Your task to perform on an android device: find which apps use the phone's location Image 0: 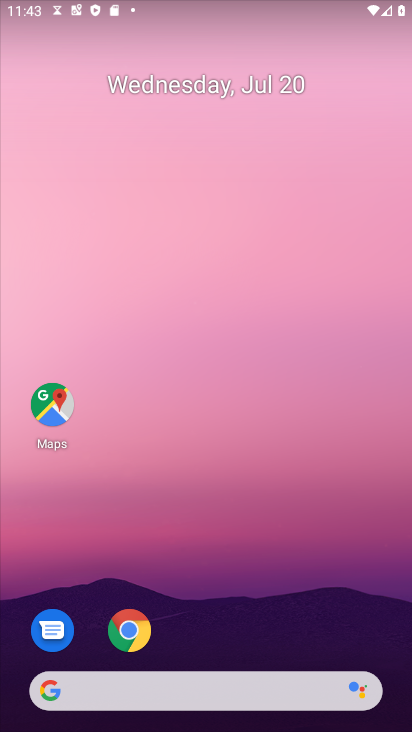
Step 0: drag from (28, 690) to (360, 16)
Your task to perform on an android device: find which apps use the phone's location Image 1: 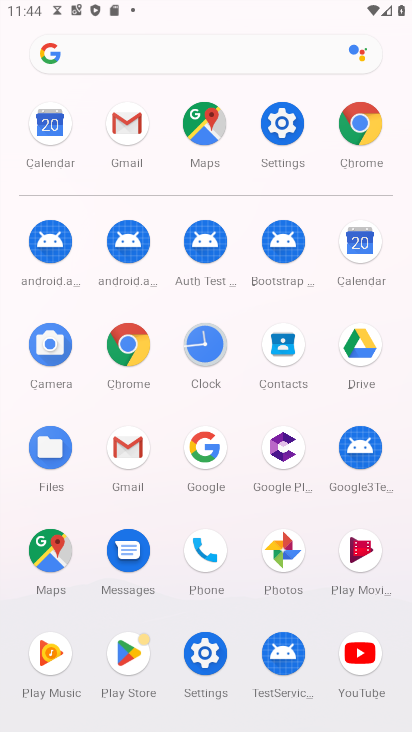
Step 1: click (195, 654)
Your task to perform on an android device: find which apps use the phone's location Image 2: 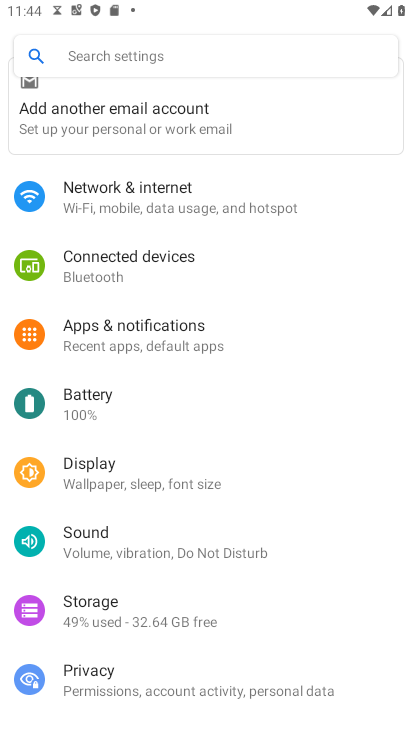
Step 2: click (139, 331)
Your task to perform on an android device: find which apps use the phone's location Image 3: 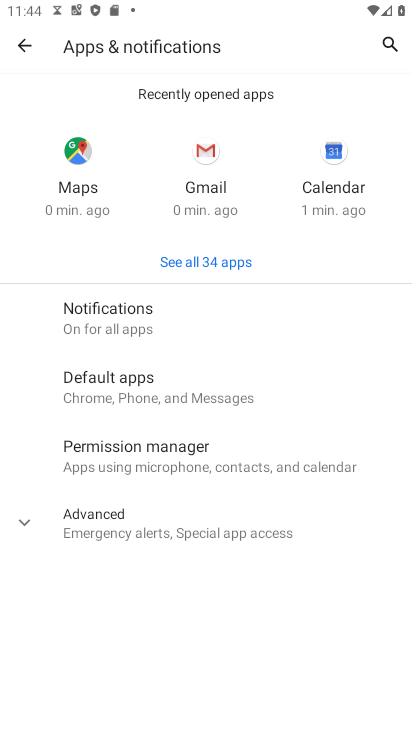
Step 3: click (160, 470)
Your task to perform on an android device: find which apps use the phone's location Image 4: 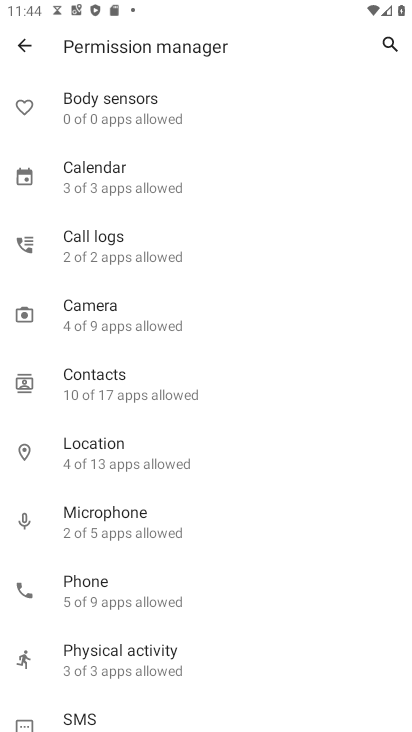
Step 4: task complete